Your task to perform on an android device: View the shopping cart on target.com. Search for alienware aurora on target.com, select the first entry, add it to the cart, then select checkout. Image 0: 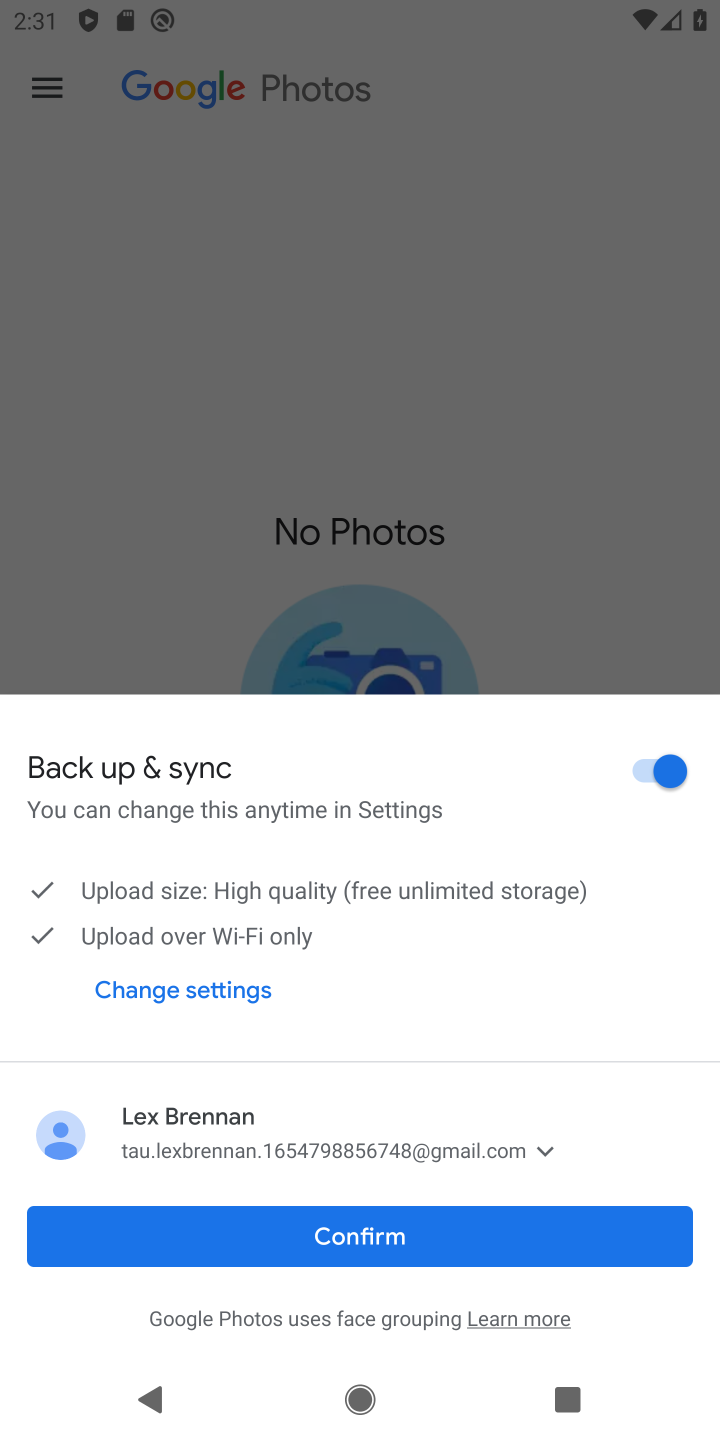
Step 0: press home button
Your task to perform on an android device: View the shopping cart on target.com. Search for alienware aurora on target.com, select the first entry, add it to the cart, then select checkout. Image 1: 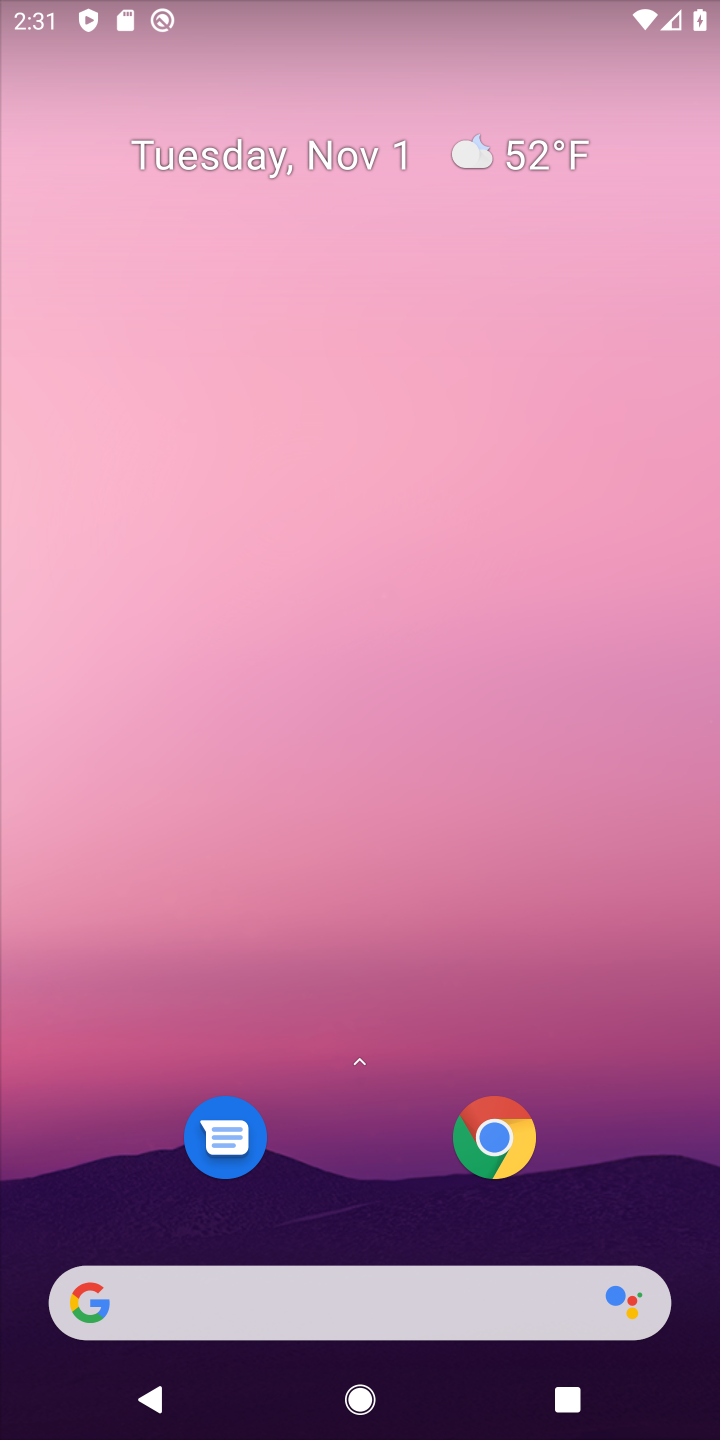
Step 1: click (419, 1303)
Your task to perform on an android device: View the shopping cart on target.com. Search for alienware aurora on target.com, select the first entry, add it to the cart, then select checkout. Image 2: 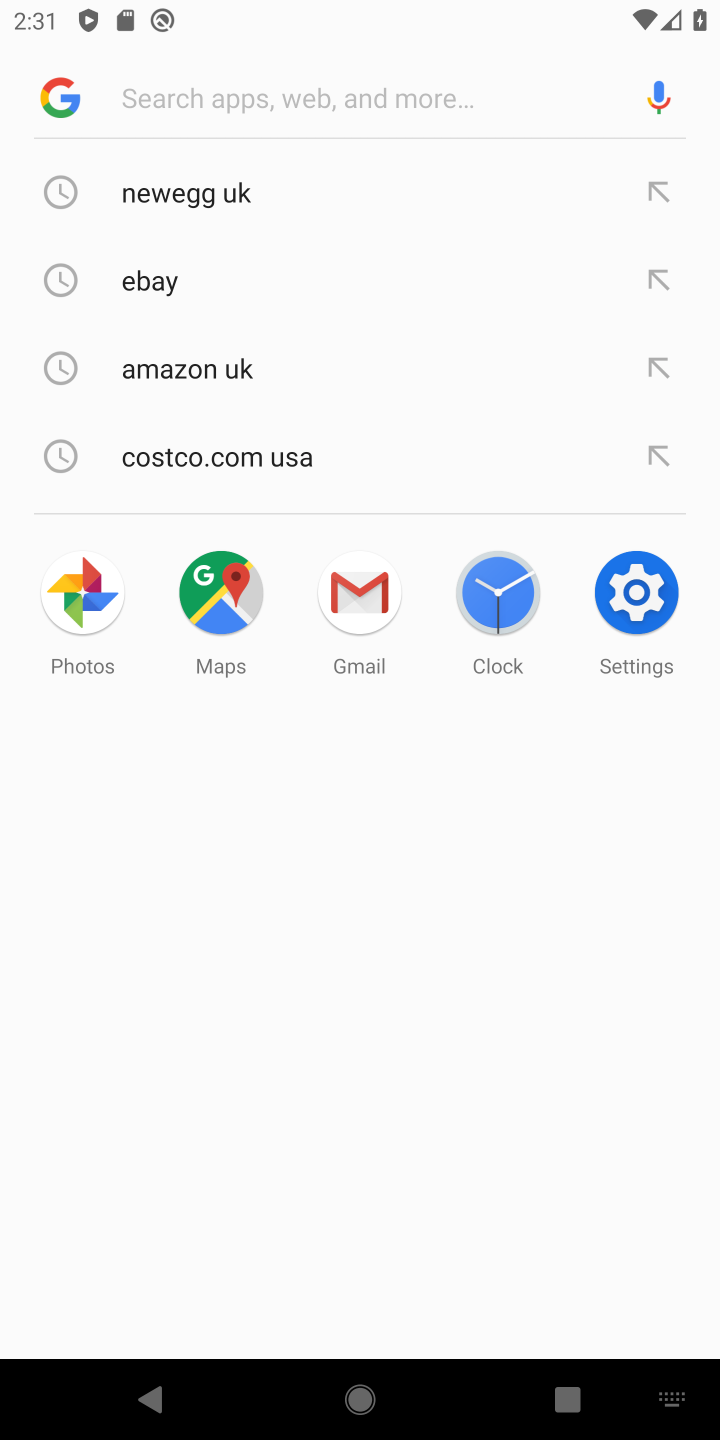
Step 2: type "tzrget"
Your task to perform on an android device: View the shopping cart on target.com. Search for alienware aurora on target.com, select the first entry, add it to the cart, then select checkout. Image 3: 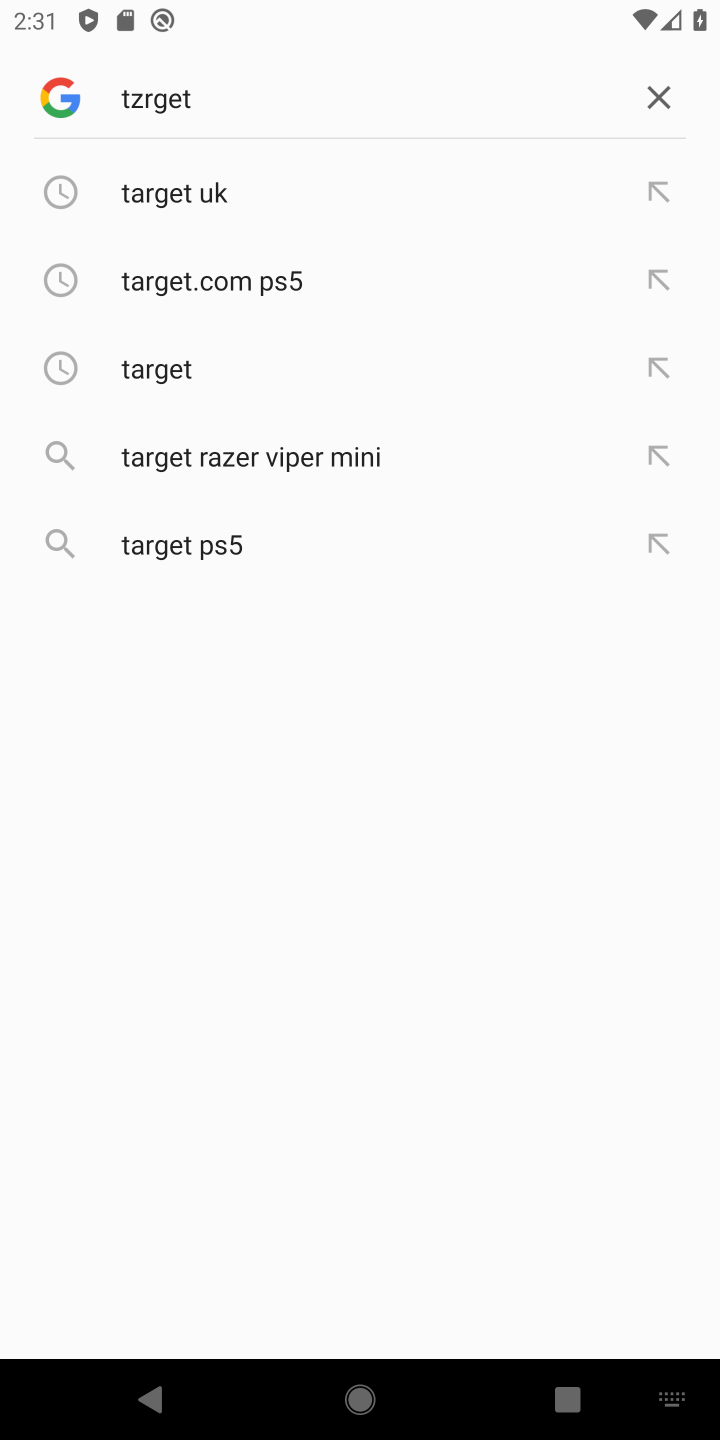
Step 3: click (280, 205)
Your task to perform on an android device: View the shopping cart on target.com. Search for alienware aurora on target.com, select the first entry, add it to the cart, then select checkout. Image 4: 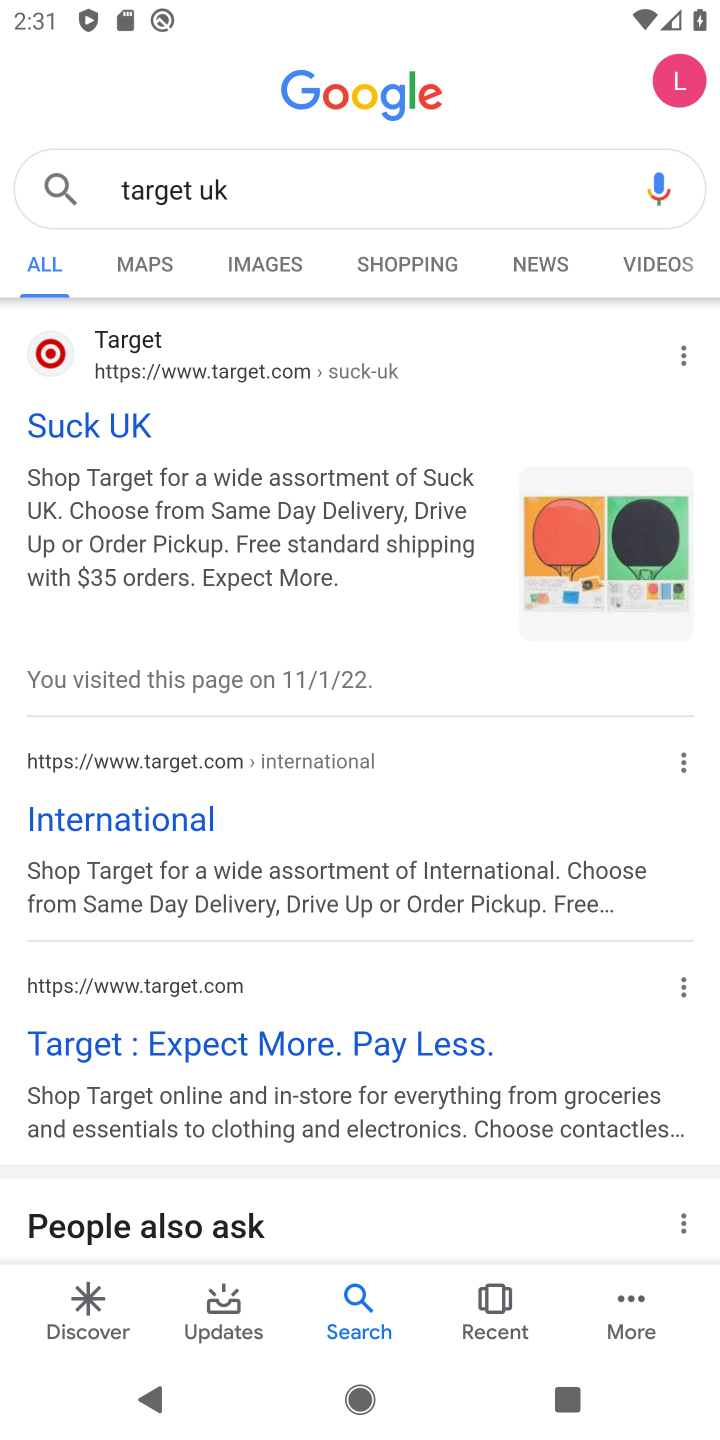
Step 4: click (129, 412)
Your task to perform on an android device: View the shopping cart on target.com. Search for alienware aurora on target.com, select the first entry, add it to the cart, then select checkout. Image 5: 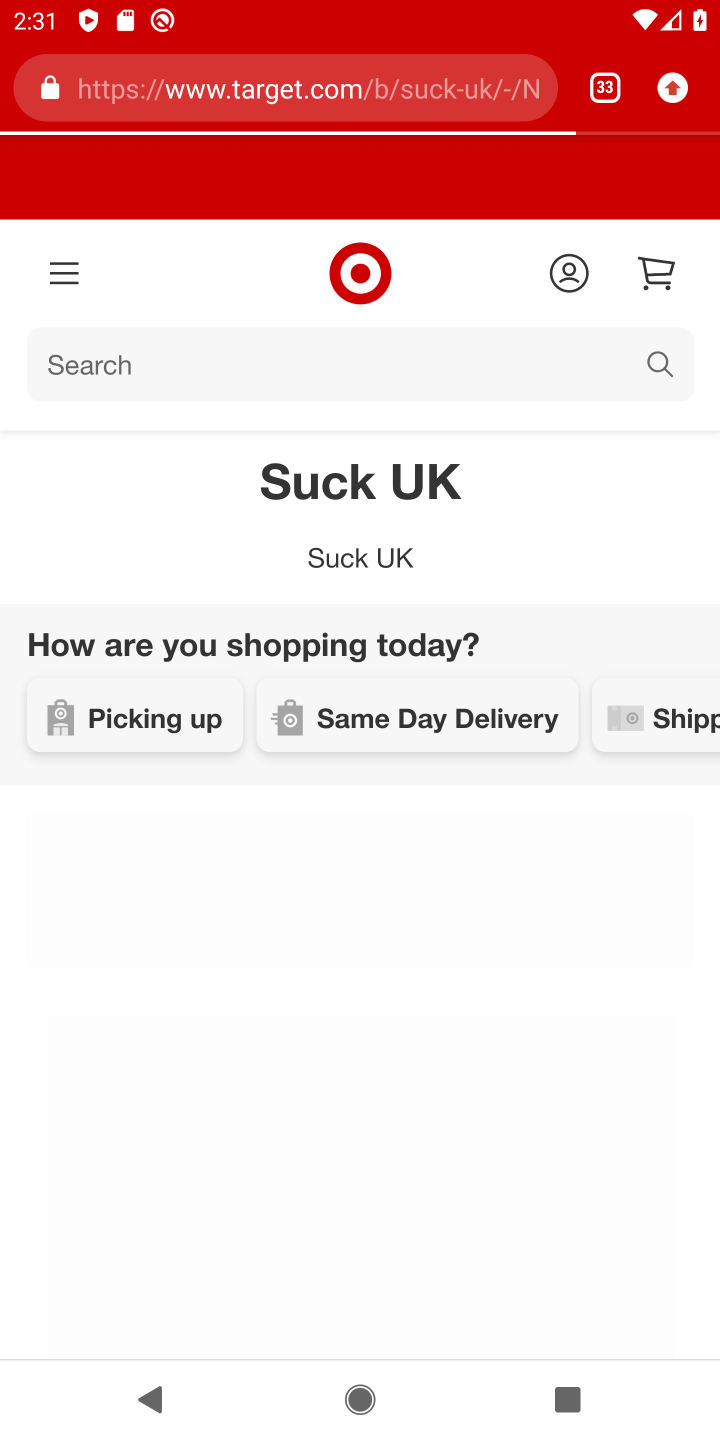
Step 5: click (332, 359)
Your task to perform on an android device: View the shopping cart on target.com. Search for alienware aurora on target.com, select the first entry, add it to the cart, then select checkout. Image 6: 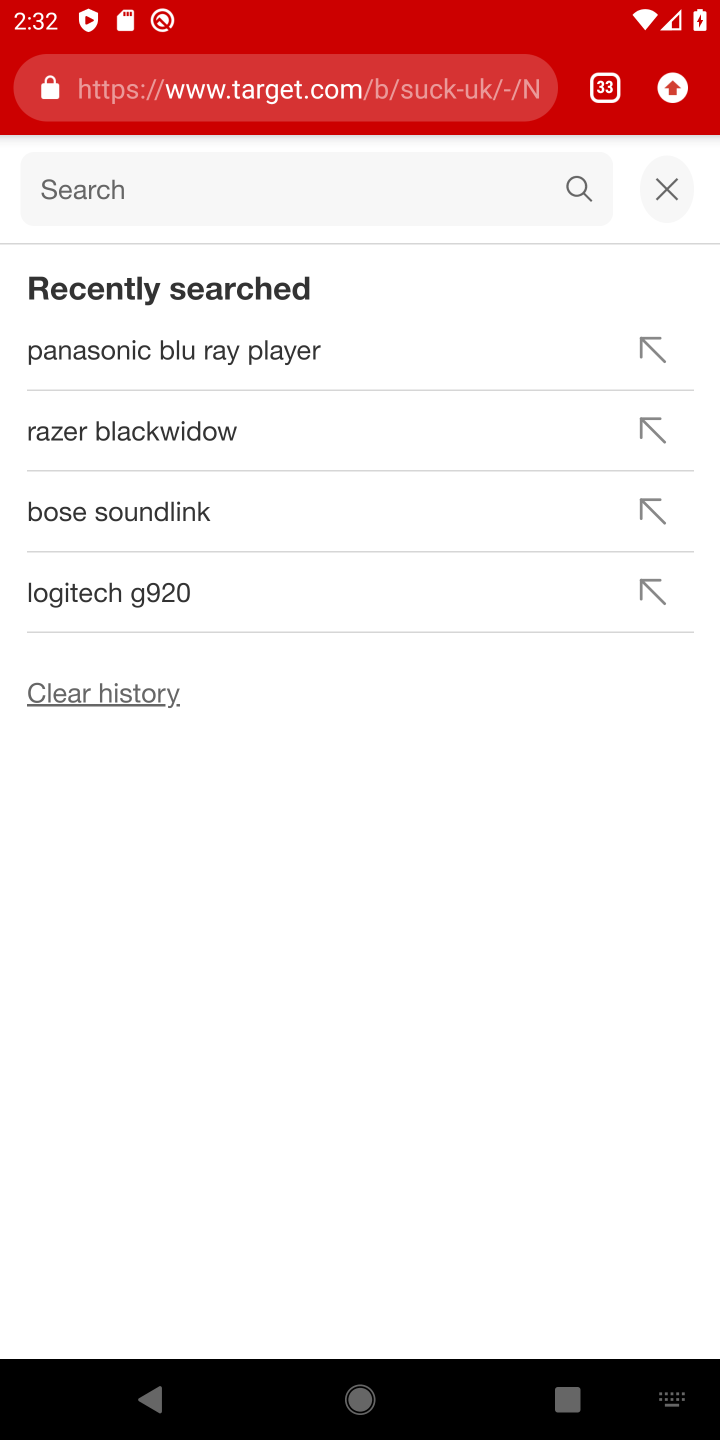
Step 6: type "alienware aurora"
Your task to perform on an android device: View the shopping cart on target.com. Search for alienware aurora on target.com, select the first entry, add it to the cart, then select checkout. Image 7: 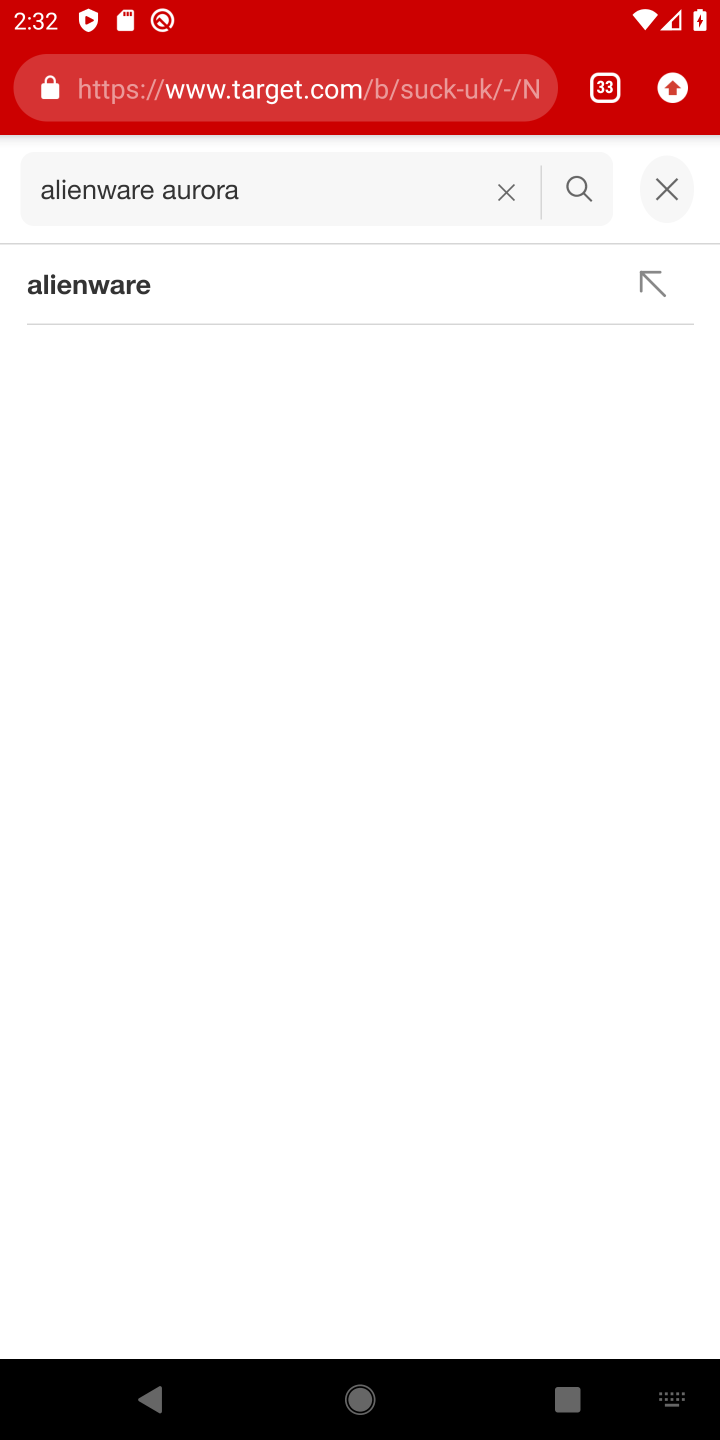
Step 7: click (586, 177)
Your task to perform on an android device: View the shopping cart on target.com. Search for alienware aurora on target.com, select the first entry, add it to the cart, then select checkout. Image 8: 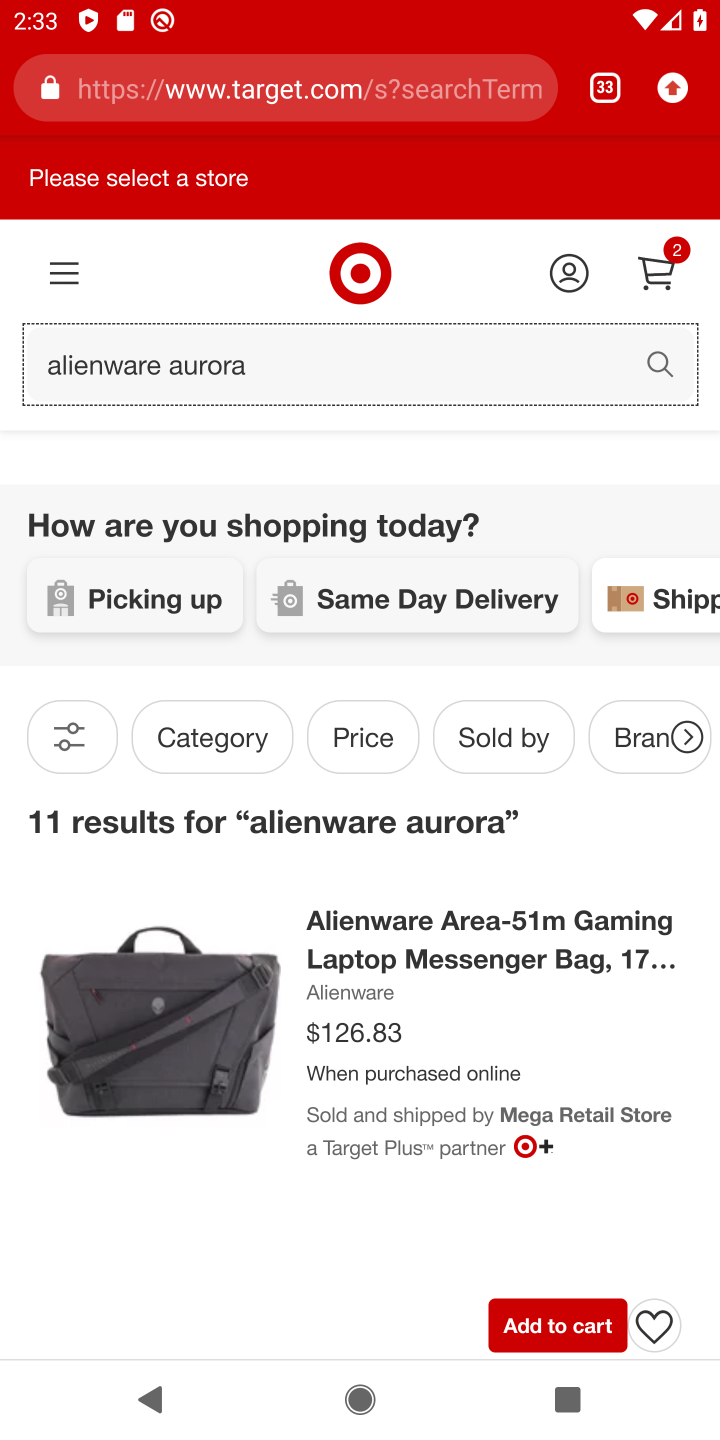
Step 8: click (556, 1339)
Your task to perform on an android device: View the shopping cart on target.com. Search for alienware aurora on target.com, select the first entry, add it to the cart, then select checkout. Image 9: 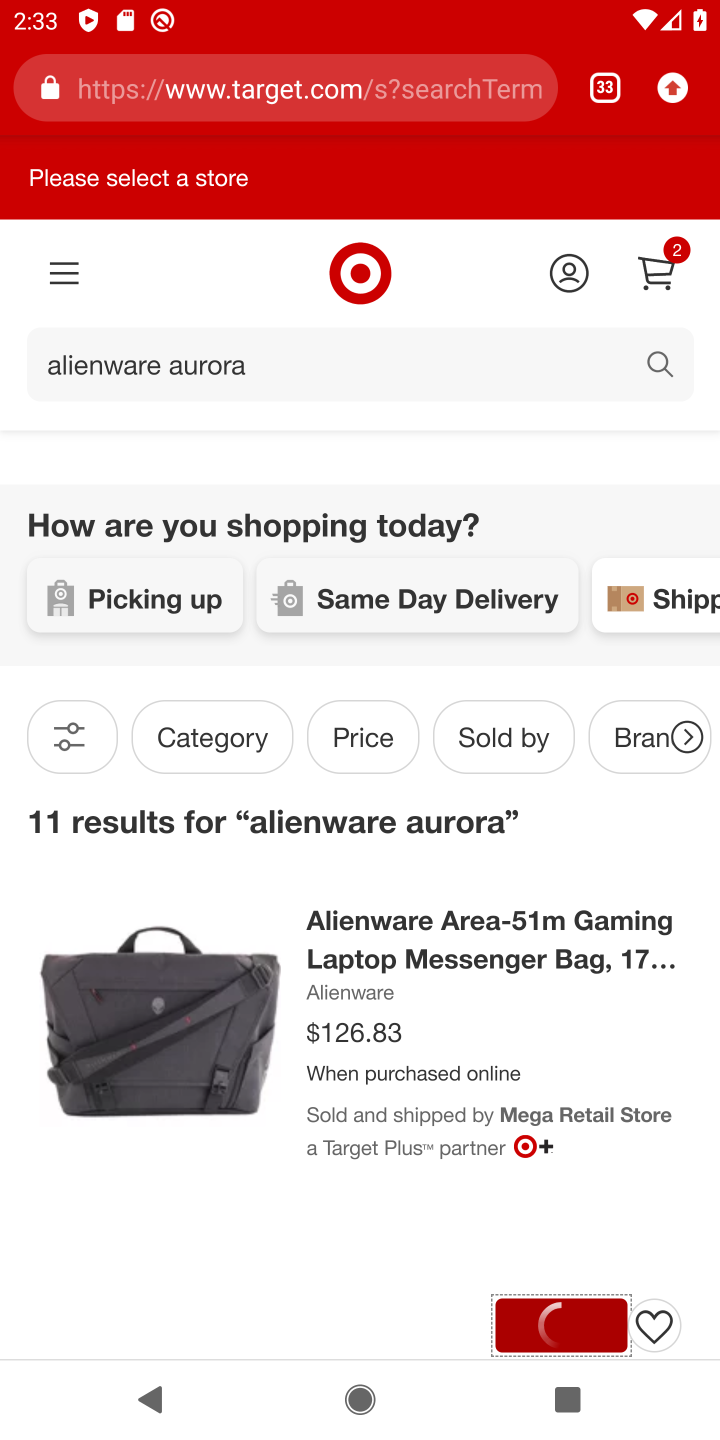
Step 9: task complete